Your task to perform on an android device: Clear the cart on amazon.com. Search for acer nitro on amazon.com, select the first entry, add it to the cart, then select checkout. Image 0: 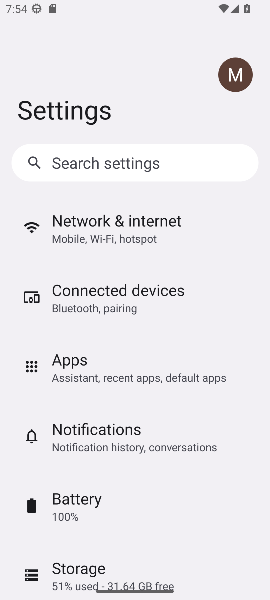
Step 0: press home button
Your task to perform on an android device: Clear the cart on amazon.com. Search for acer nitro on amazon.com, select the first entry, add it to the cart, then select checkout. Image 1: 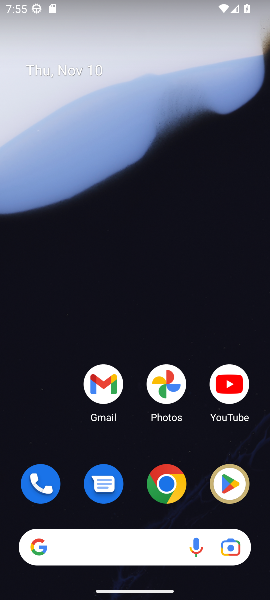
Step 1: click (167, 480)
Your task to perform on an android device: Clear the cart on amazon.com. Search for acer nitro on amazon.com, select the first entry, add it to the cart, then select checkout. Image 2: 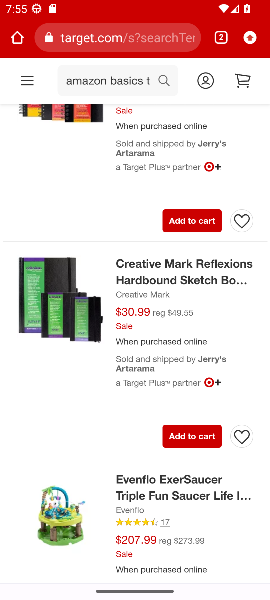
Step 2: click (125, 43)
Your task to perform on an android device: Clear the cart on amazon.com. Search for acer nitro on amazon.com, select the first entry, add it to the cart, then select checkout. Image 3: 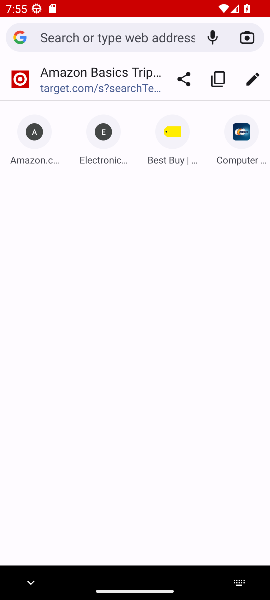
Step 3: click (29, 156)
Your task to perform on an android device: Clear the cart on amazon.com. Search for acer nitro on amazon.com, select the first entry, add it to the cart, then select checkout. Image 4: 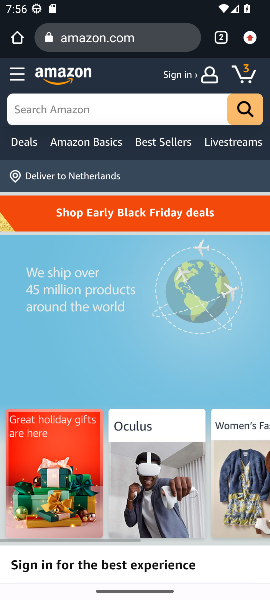
Step 4: click (242, 73)
Your task to perform on an android device: Clear the cart on amazon.com. Search for acer nitro on amazon.com, select the first entry, add it to the cart, then select checkout. Image 5: 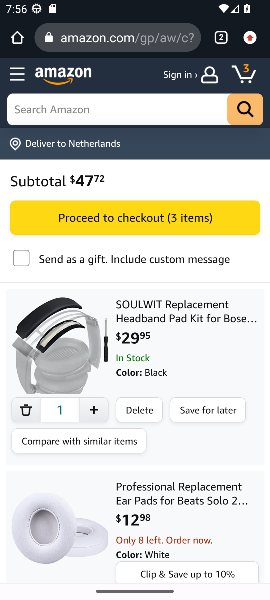
Step 5: click (139, 404)
Your task to perform on an android device: Clear the cart on amazon.com. Search for acer nitro on amazon.com, select the first entry, add it to the cart, then select checkout. Image 6: 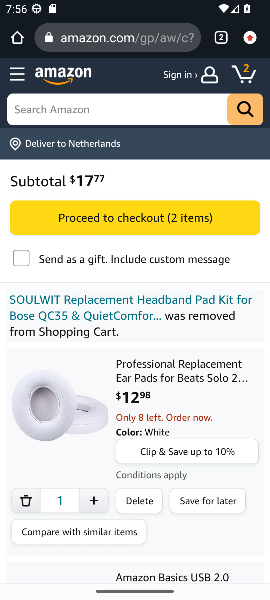
Step 6: click (135, 498)
Your task to perform on an android device: Clear the cart on amazon.com. Search for acer nitro on amazon.com, select the first entry, add it to the cart, then select checkout. Image 7: 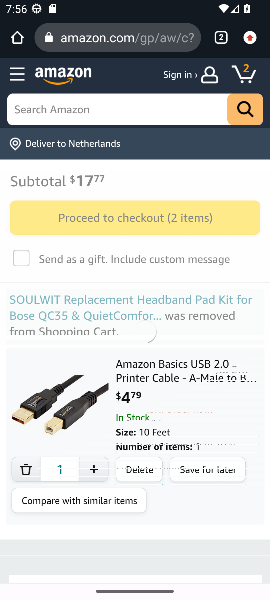
Step 7: click (143, 468)
Your task to perform on an android device: Clear the cart on amazon.com. Search for acer nitro on amazon.com, select the first entry, add it to the cart, then select checkout. Image 8: 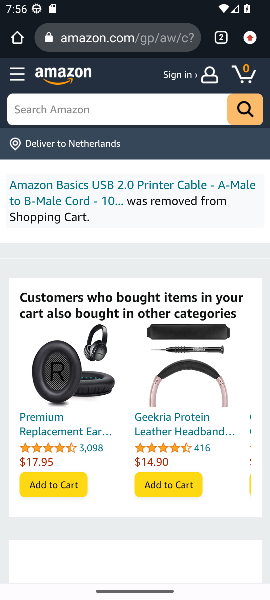
Step 8: click (95, 109)
Your task to perform on an android device: Clear the cart on amazon.com. Search for acer nitro on amazon.com, select the first entry, add it to the cart, then select checkout. Image 9: 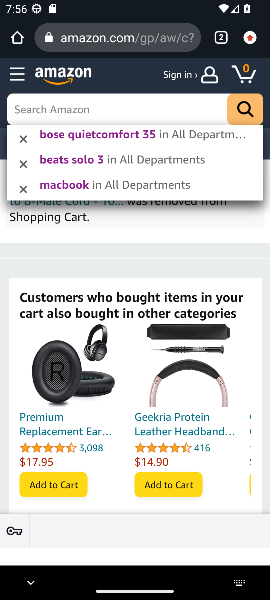
Step 9: click (48, 110)
Your task to perform on an android device: Clear the cart on amazon.com. Search for acer nitro on amazon.com, select the first entry, add it to the cart, then select checkout. Image 10: 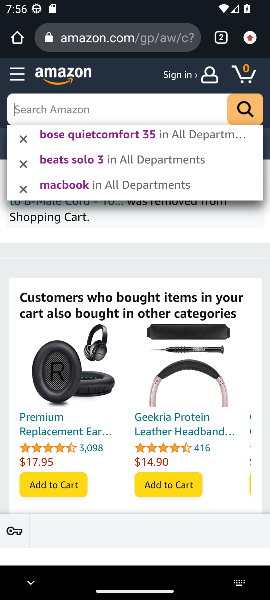
Step 10: type "acer nitro"
Your task to perform on an android device: Clear the cart on amazon.com. Search for acer nitro on amazon.com, select the first entry, add it to the cart, then select checkout. Image 11: 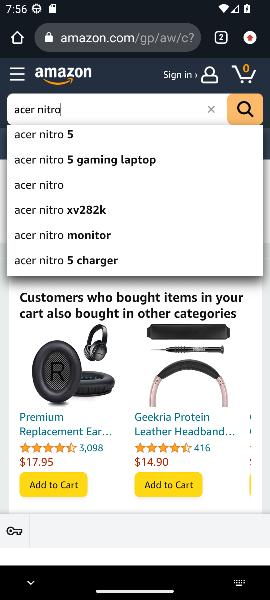
Step 11: click (46, 182)
Your task to perform on an android device: Clear the cart on amazon.com. Search for acer nitro on amazon.com, select the first entry, add it to the cart, then select checkout. Image 12: 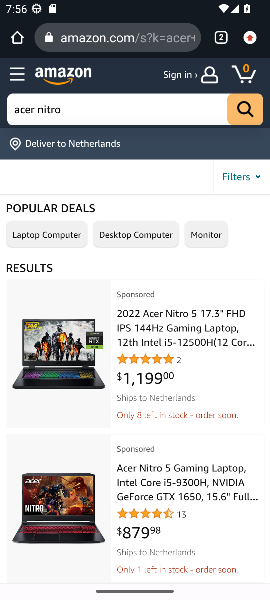
Step 12: click (55, 377)
Your task to perform on an android device: Clear the cart on amazon.com. Search for acer nitro on amazon.com, select the first entry, add it to the cart, then select checkout. Image 13: 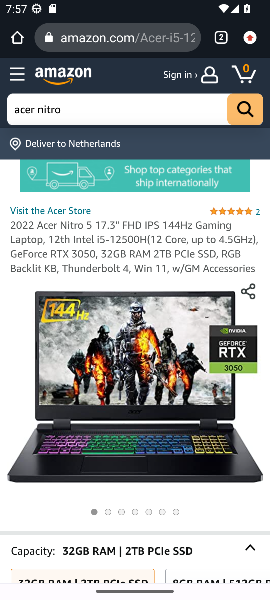
Step 13: drag from (102, 446) to (62, 258)
Your task to perform on an android device: Clear the cart on amazon.com. Search for acer nitro on amazon.com, select the first entry, add it to the cart, then select checkout. Image 14: 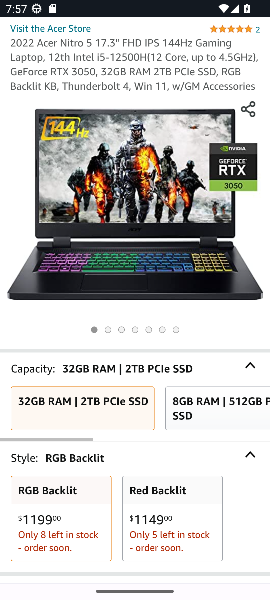
Step 14: drag from (76, 486) to (55, 190)
Your task to perform on an android device: Clear the cart on amazon.com. Search for acer nitro on amazon.com, select the first entry, add it to the cart, then select checkout. Image 15: 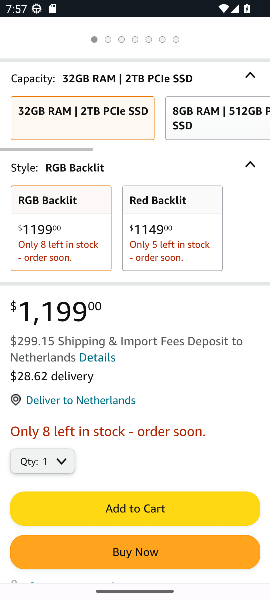
Step 15: click (135, 511)
Your task to perform on an android device: Clear the cart on amazon.com. Search for acer nitro on amazon.com, select the first entry, add it to the cart, then select checkout. Image 16: 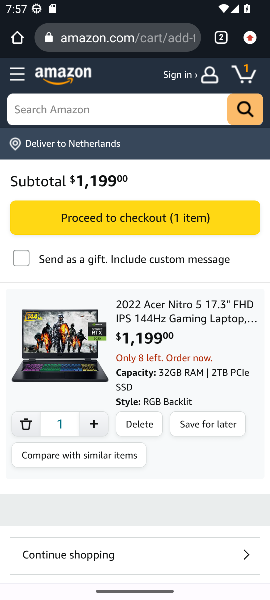
Step 16: click (108, 218)
Your task to perform on an android device: Clear the cart on amazon.com. Search for acer nitro on amazon.com, select the first entry, add it to the cart, then select checkout. Image 17: 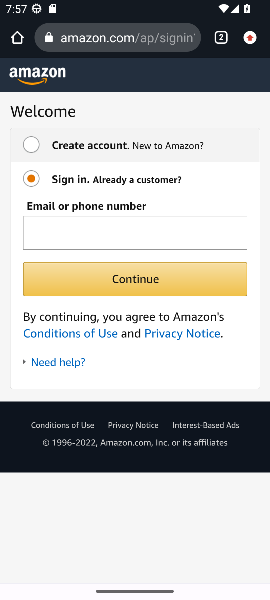
Step 17: task complete